Your task to perform on an android device: set default search engine in the chrome app Image 0: 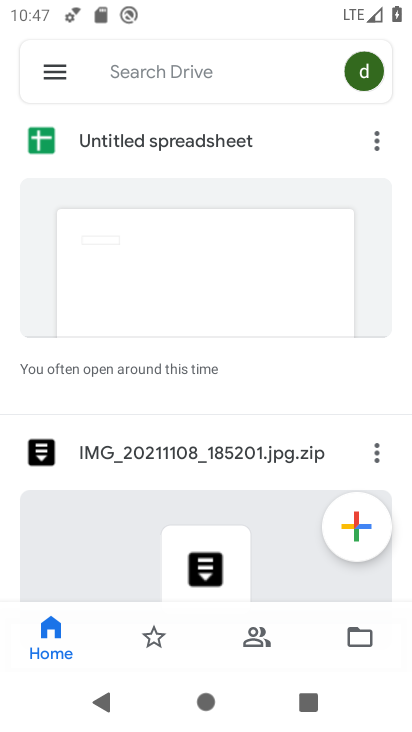
Step 0: press home button
Your task to perform on an android device: set default search engine in the chrome app Image 1: 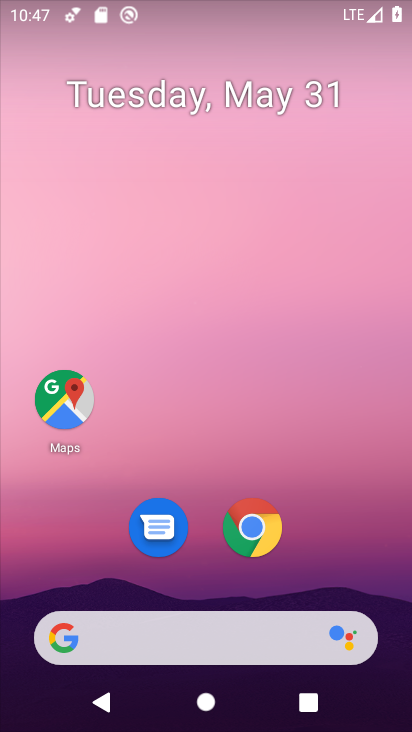
Step 1: click (258, 531)
Your task to perform on an android device: set default search engine in the chrome app Image 2: 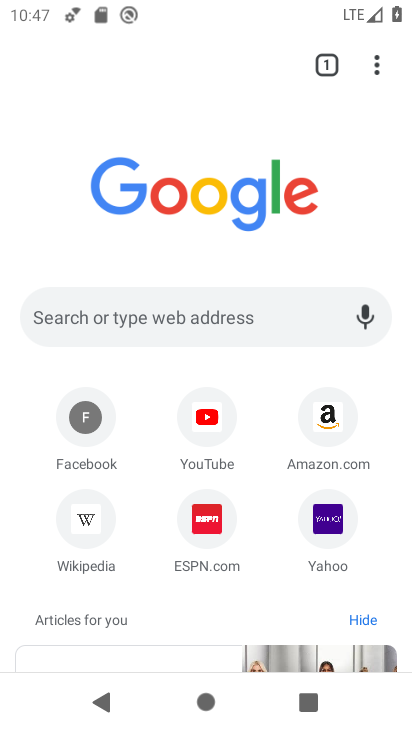
Step 2: click (379, 64)
Your task to perform on an android device: set default search engine in the chrome app Image 3: 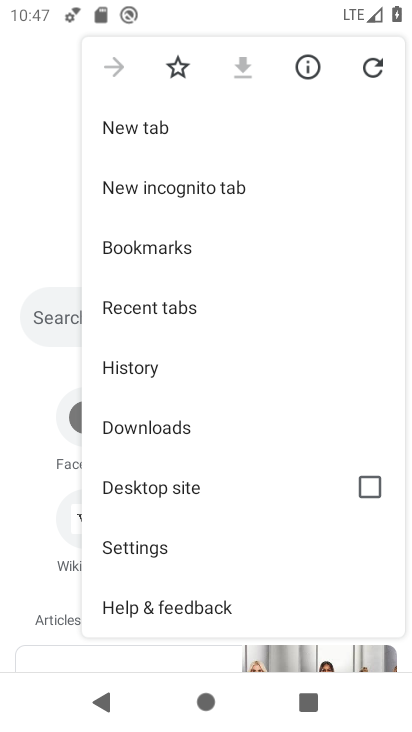
Step 3: click (131, 549)
Your task to perform on an android device: set default search engine in the chrome app Image 4: 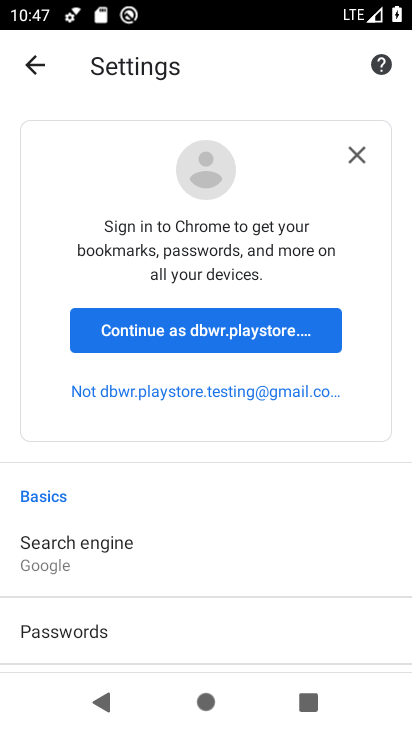
Step 4: drag from (189, 605) to (165, 176)
Your task to perform on an android device: set default search engine in the chrome app Image 5: 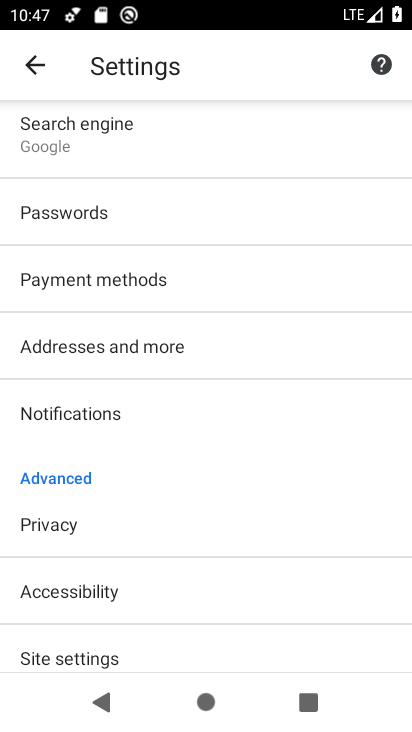
Step 5: drag from (153, 583) to (158, 278)
Your task to perform on an android device: set default search engine in the chrome app Image 6: 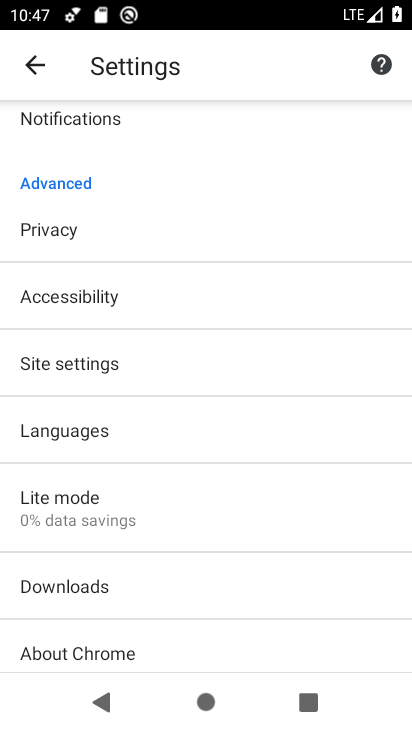
Step 6: drag from (195, 217) to (187, 484)
Your task to perform on an android device: set default search engine in the chrome app Image 7: 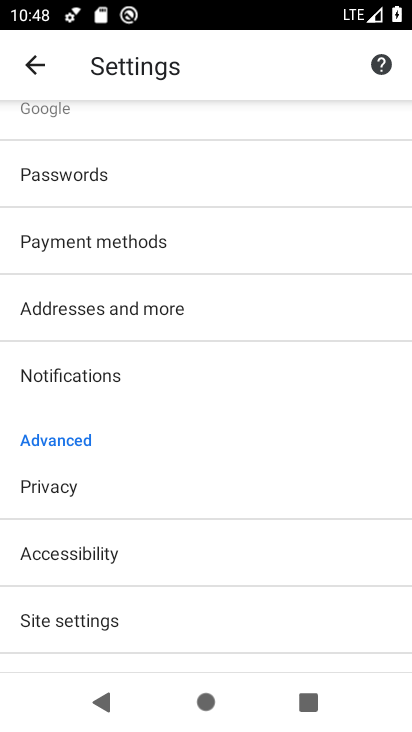
Step 7: drag from (177, 243) to (166, 463)
Your task to perform on an android device: set default search engine in the chrome app Image 8: 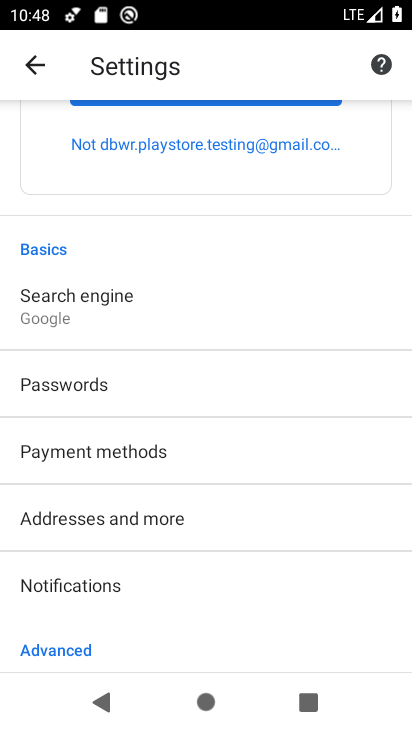
Step 8: click (71, 308)
Your task to perform on an android device: set default search engine in the chrome app Image 9: 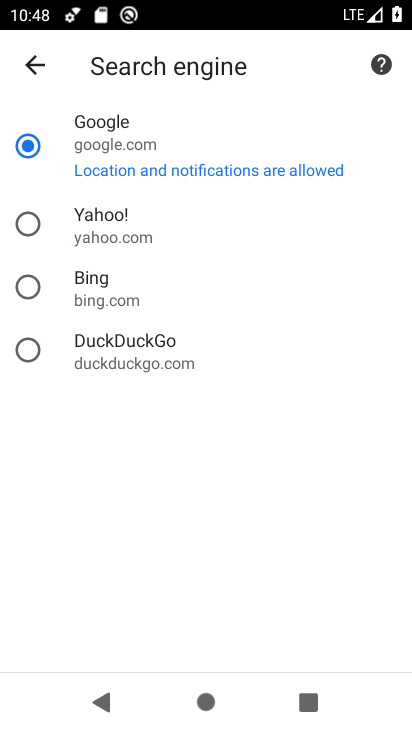
Step 9: click (33, 224)
Your task to perform on an android device: set default search engine in the chrome app Image 10: 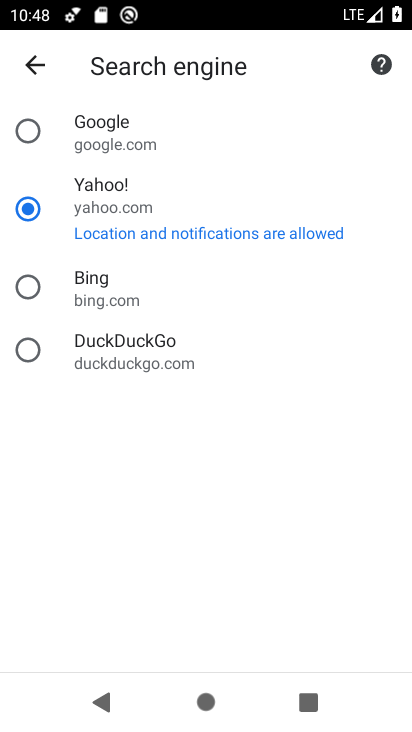
Step 10: task complete